Your task to perform on an android device: When is my next appointment? Image 0: 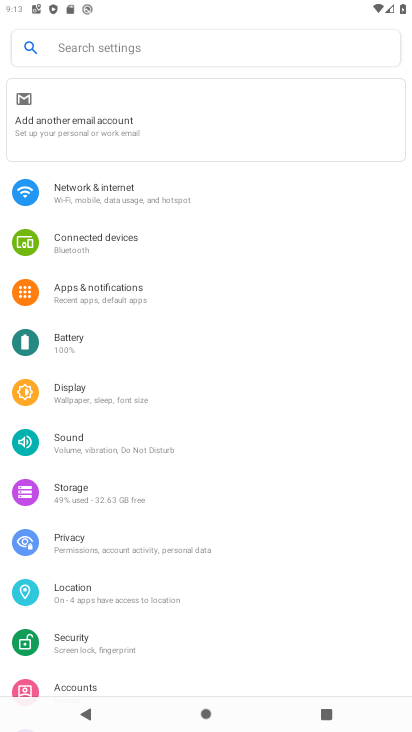
Step 0: press home button
Your task to perform on an android device: When is my next appointment? Image 1: 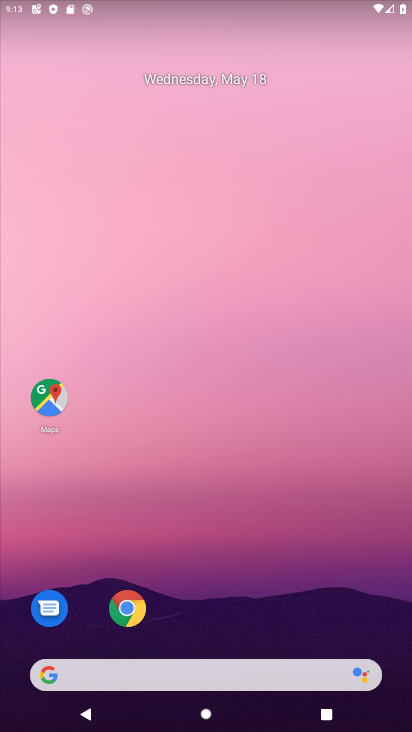
Step 1: drag from (41, 567) to (260, 165)
Your task to perform on an android device: When is my next appointment? Image 2: 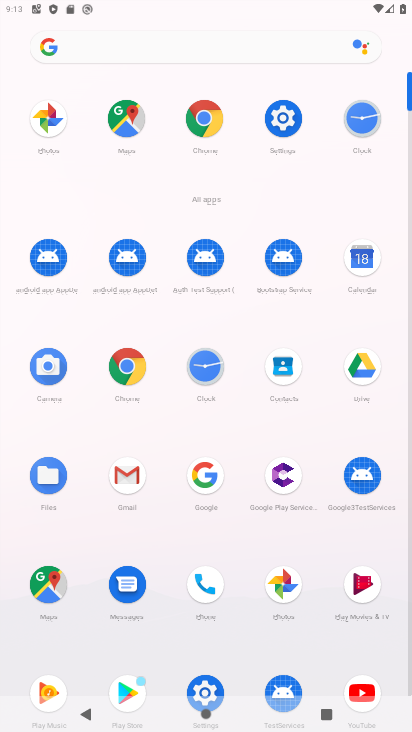
Step 2: click (359, 261)
Your task to perform on an android device: When is my next appointment? Image 3: 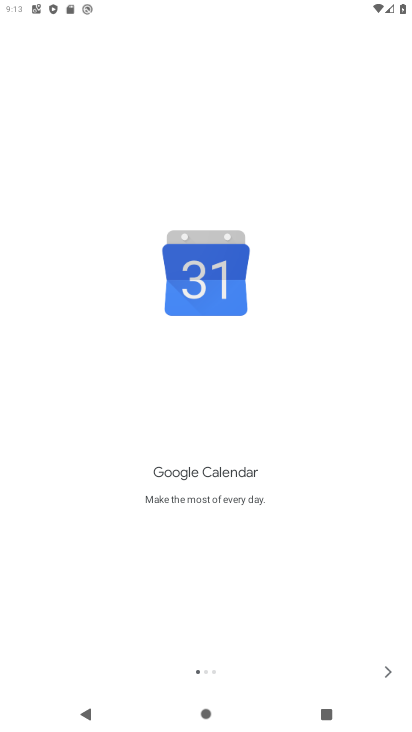
Step 3: click (389, 669)
Your task to perform on an android device: When is my next appointment? Image 4: 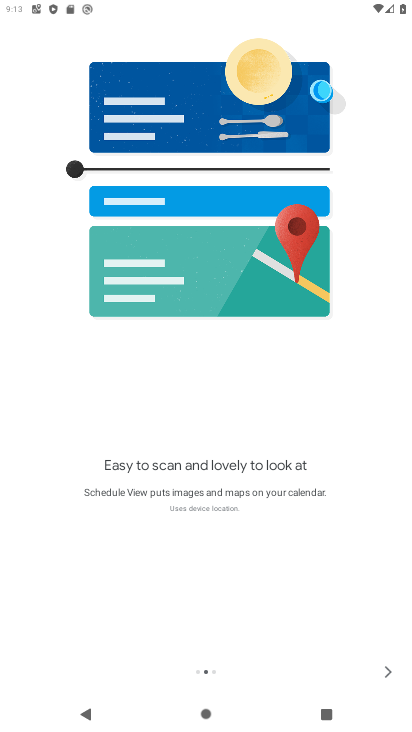
Step 4: click (392, 672)
Your task to perform on an android device: When is my next appointment? Image 5: 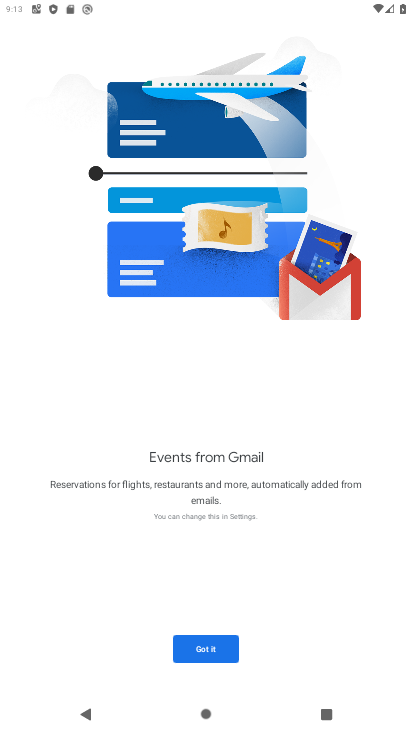
Step 5: click (214, 650)
Your task to perform on an android device: When is my next appointment? Image 6: 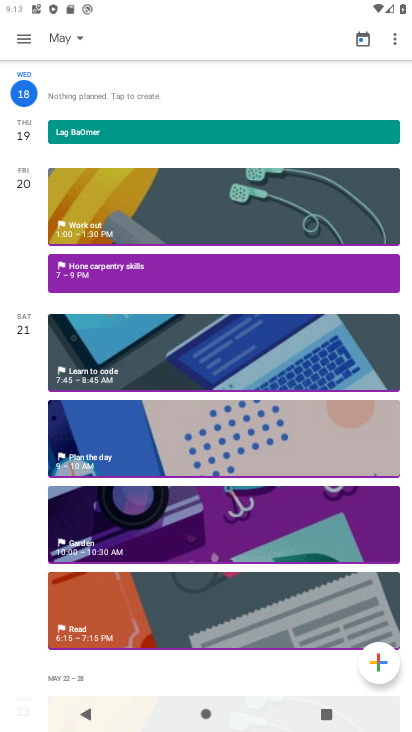
Step 6: task complete